Your task to perform on an android device: Open the stopwatch Image 0: 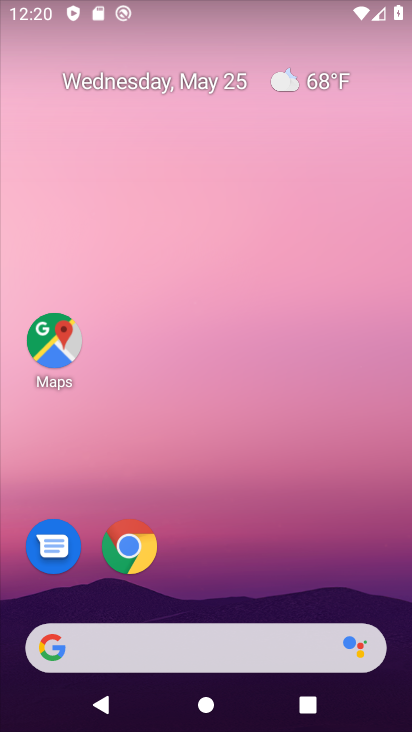
Step 0: drag from (291, 572) to (156, 44)
Your task to perform on an android device: Open the stopwatch Image 1: 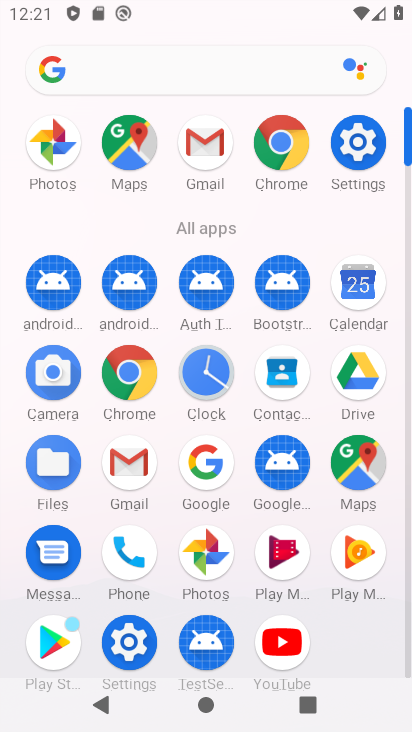
Step 1: click (210, 362)
Your task to perform on an android device: Open the stopwatch Image 2: 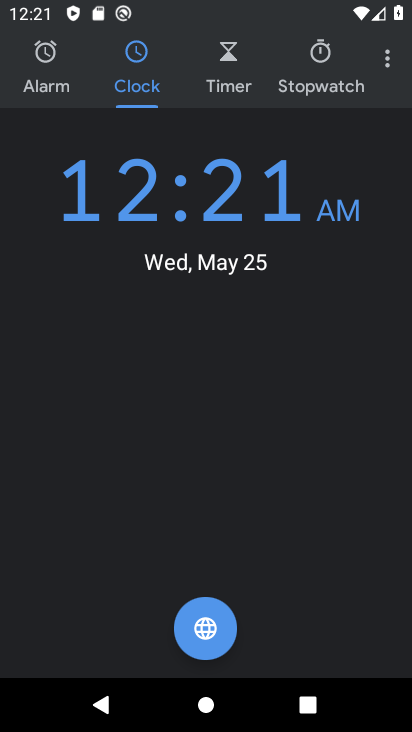
Step 2: click (312, 59)
Your task to perform on an android device: Open the stopwatch Image 3: 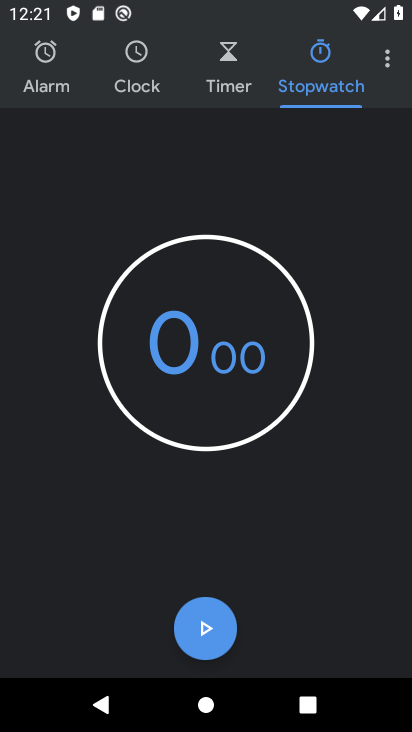
Step 3: task complete